Your task to perform on an android device: turn off sleep mode Image 0: 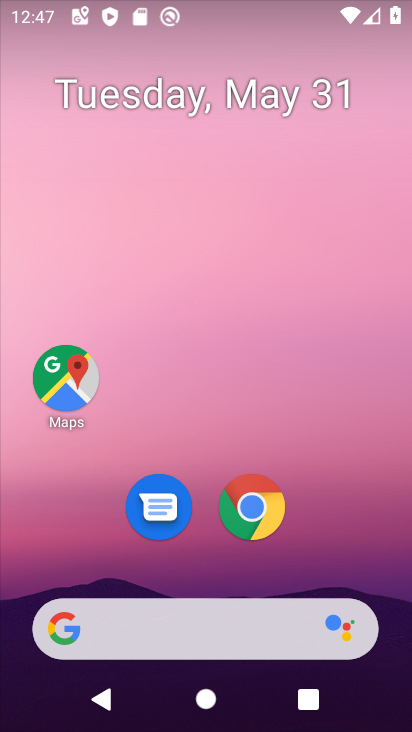
Step 0: drag from (333, 539) to (325, 74)
Your task to perform on an android device: turn off sleep mode Image 1: 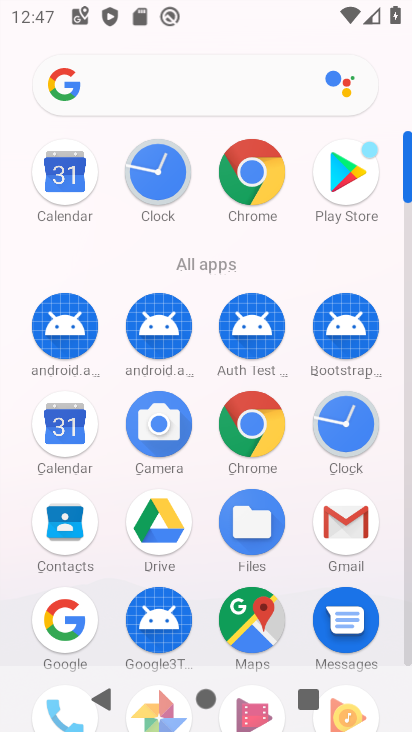
Step 1: click (404, 524)
Your task to perform on an android device: turn off sleep mode Image 2: 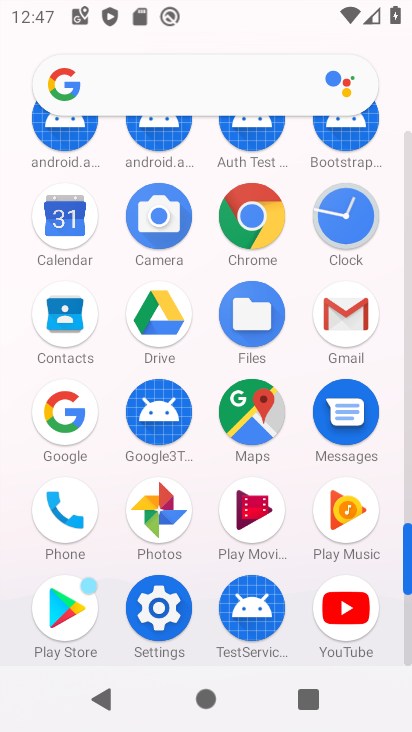
Step 2: click (175, 595)
Your task to perform on an android device: turn off sleep mode Image 3: 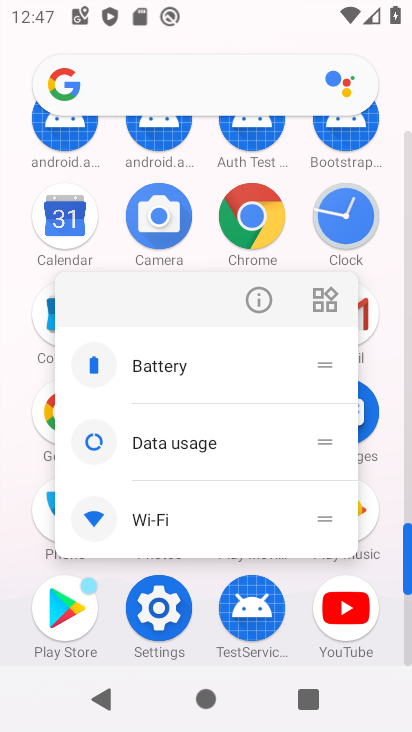
Step 3: click (168, 619)
Your task to perform on an android device: turn off sleep mode Image 4: 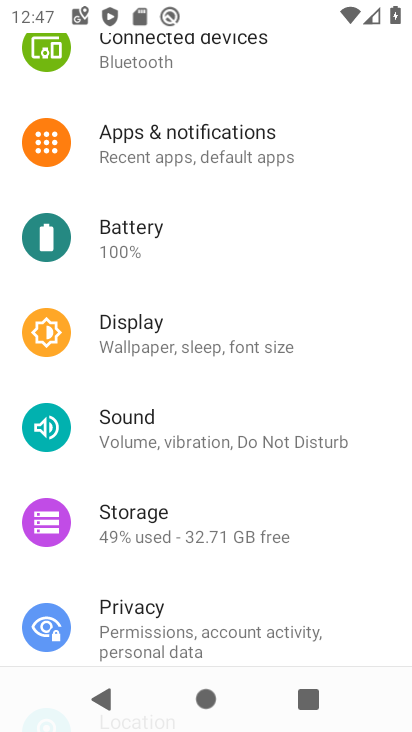
Step 4: click (167, 349)
Your task to perform on an android device: turn off sleep mode Image 5: 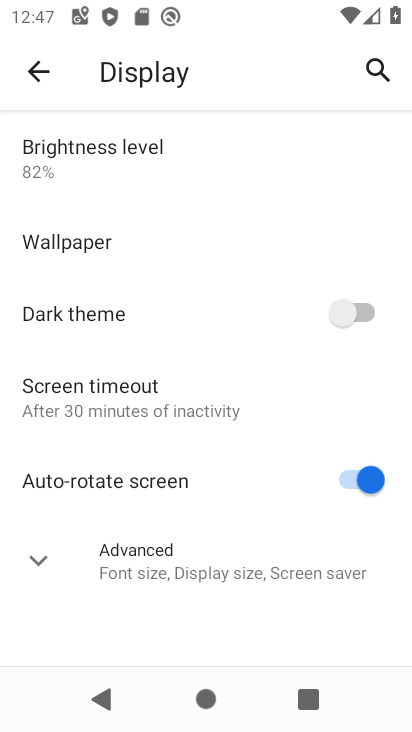
Step 5: task complete